Your task to perform on an android device: Open the calendar app, open the side menu, and click the "Day" option Image 0: 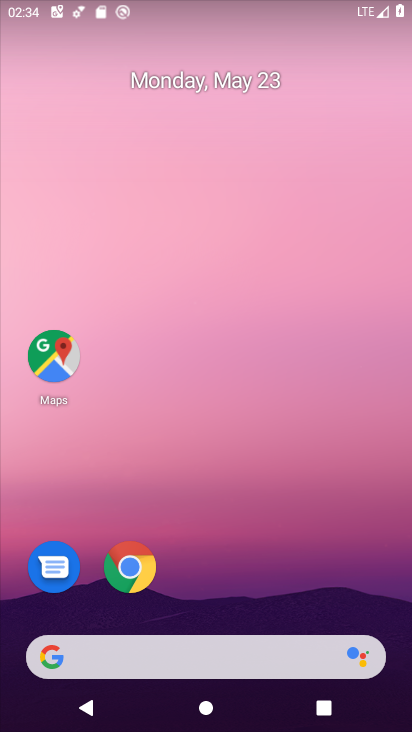
Step 0: drag from (281, 572) to (313, 168)
Your task to perform on an android device: Open the calendar app, open the side menu, and click the "Day" option Image 1: 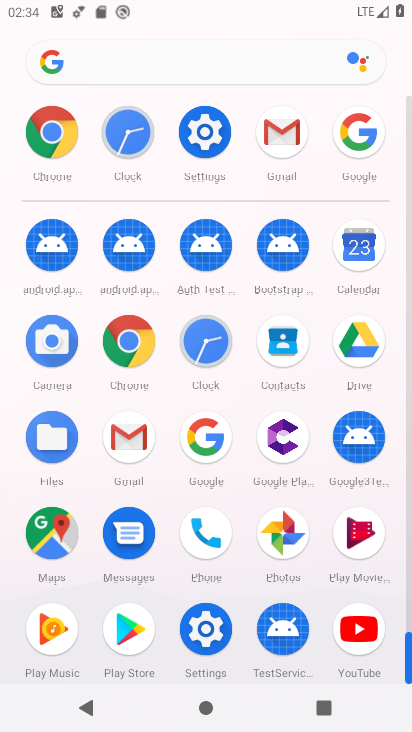
Step 1: click (362, 257)
Your task to perform on an android device: Open the calendar app, open the side menu, and click the "Day" option Image 2: 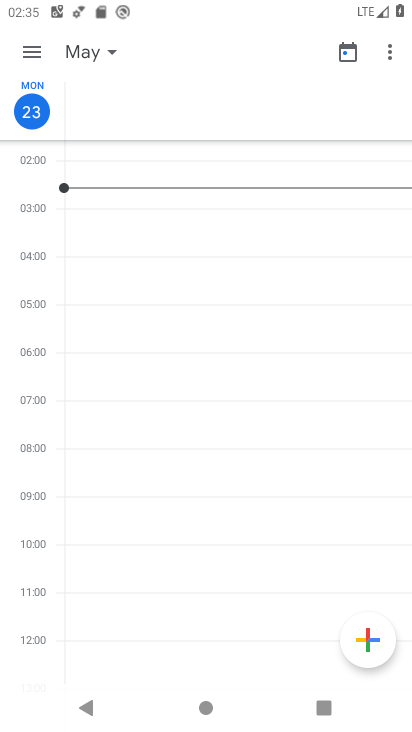
Step 2: click (24, 56)
Your task to perform on an android device: Open the calendar app, open the side menu, and click the "Day" option Image 3: 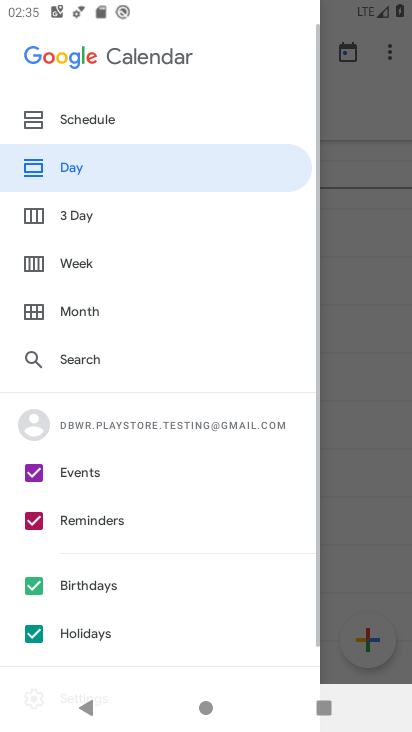
Step 3: click (93, 172)
Your task to perform on an android device: Open the calendar app, open the side menu, and click the "Day" option Image 4: 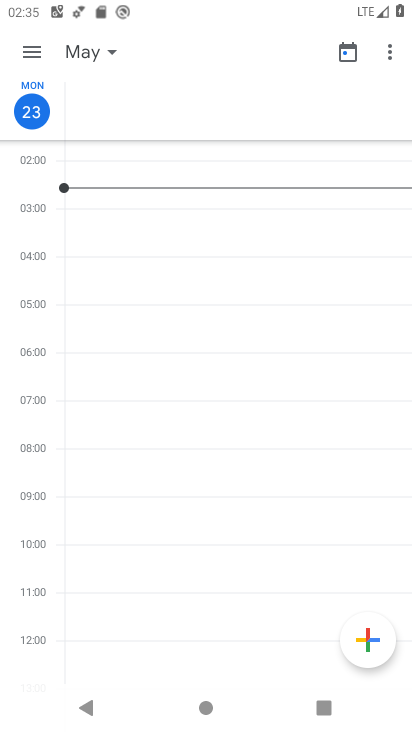
Step 4: task complete